Your task to perform on an android device: Go to battery settings Image 0: 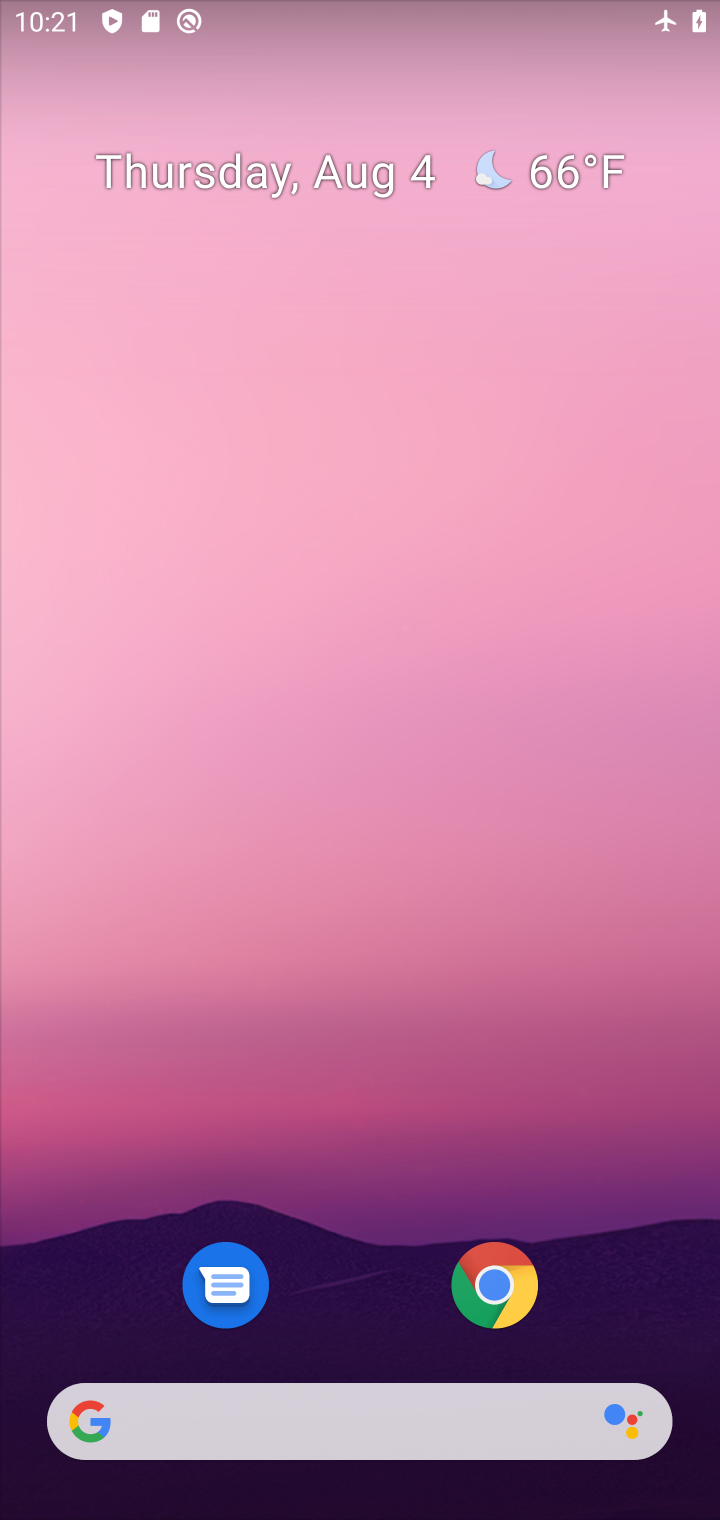
Step 0: drag from (350, 1300) to (307, 5)
Your task to perform on an android device: Go to battery settings Image 1: 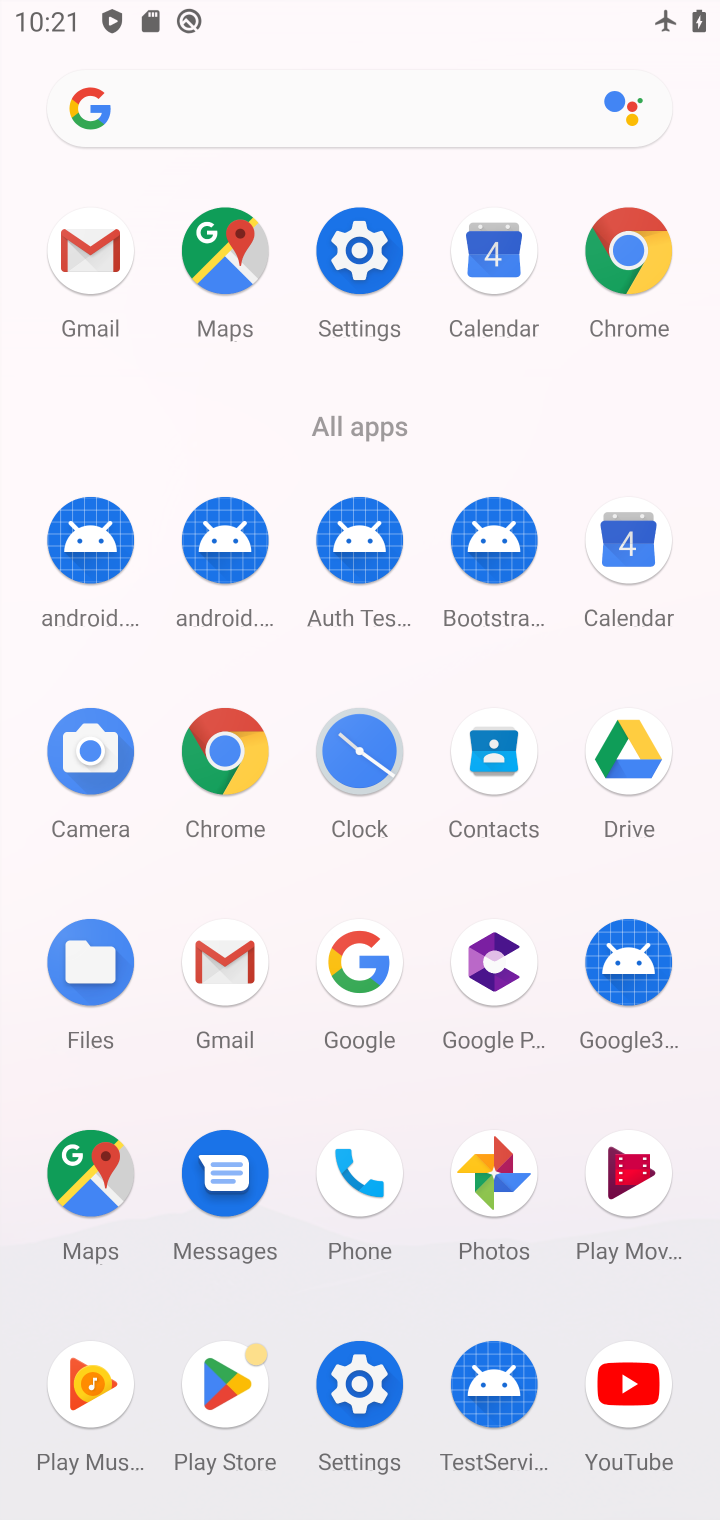
Step 1: click (364, 1354)
Your task to perform on an android device: Go to battery settings Image 2: 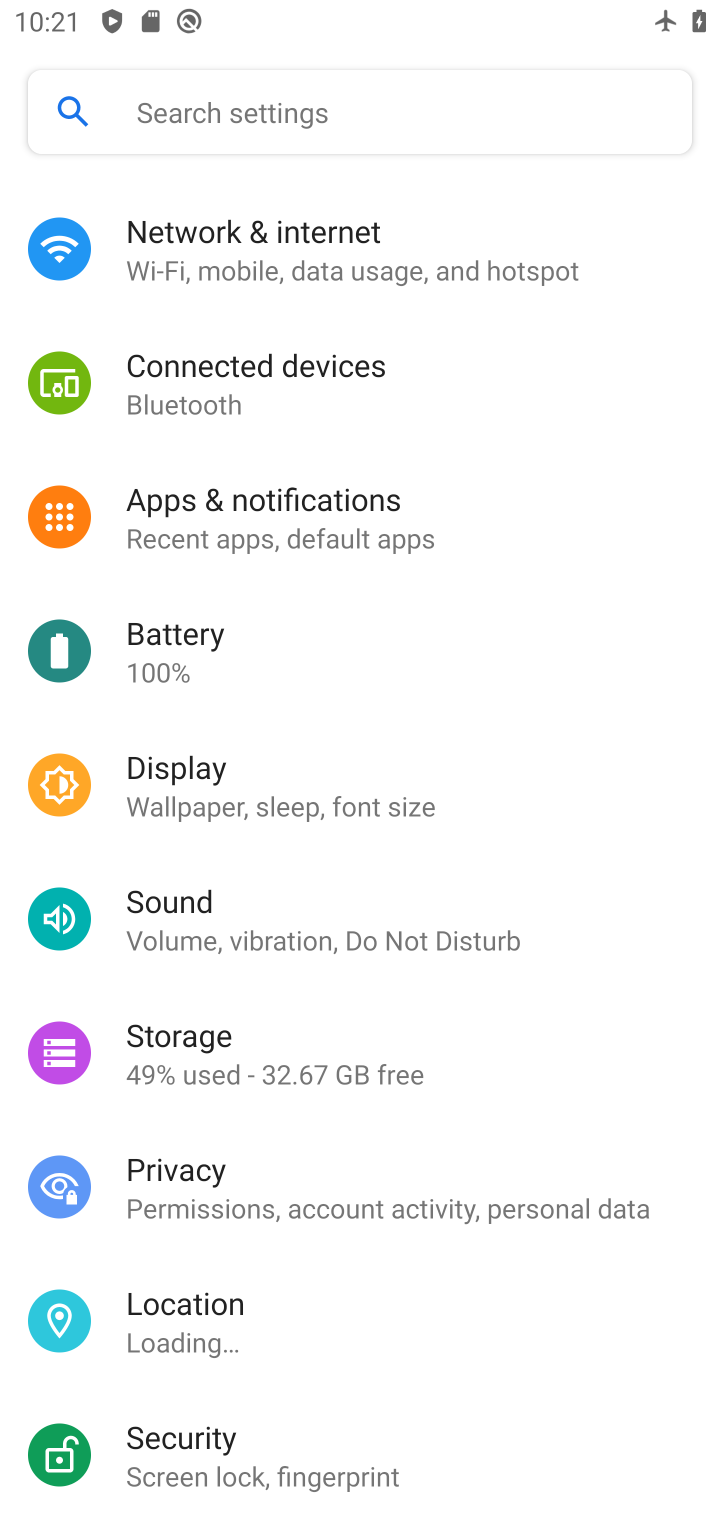
Step 2: click (155, 640)
Your task to perform on an android device: Go to battery settings Image 3: 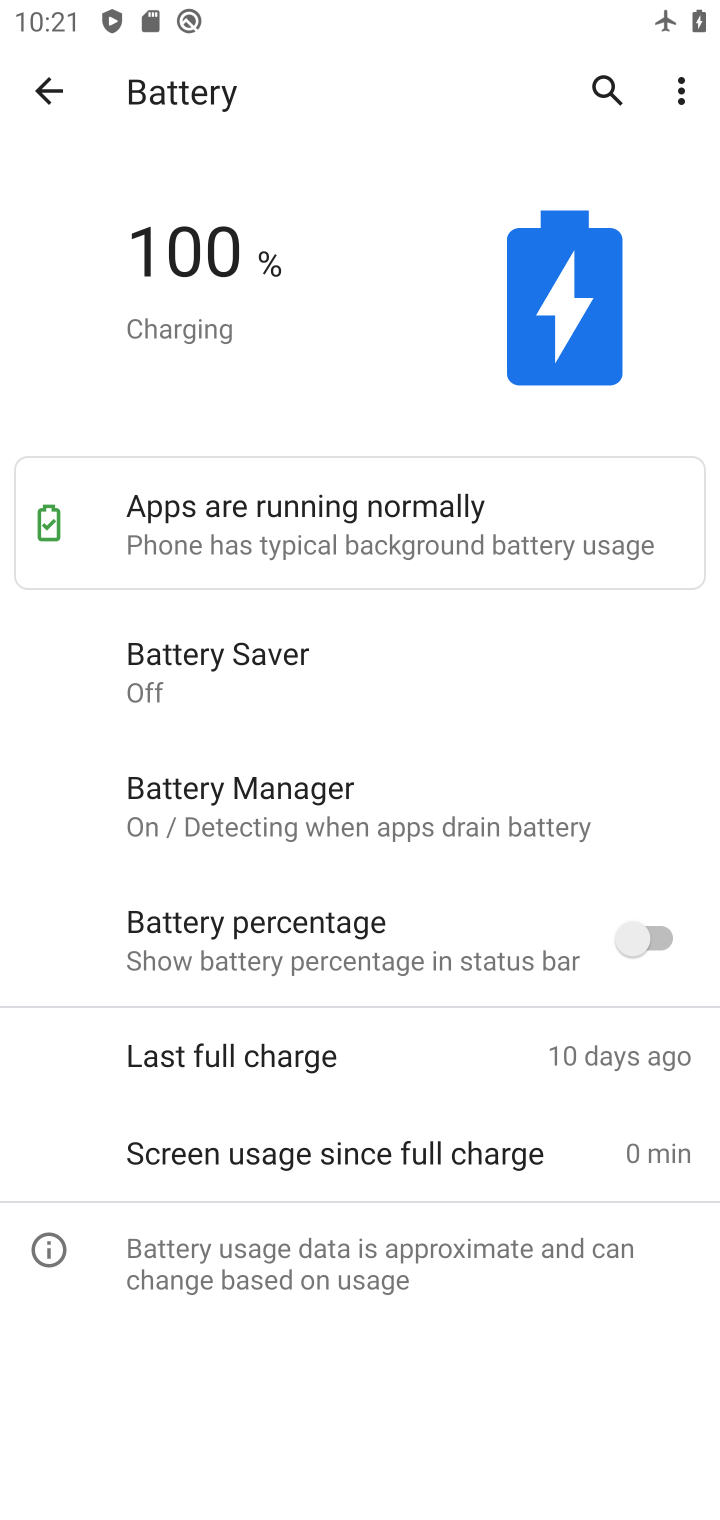
Step 3: task complete